Your task to perform on an android device: Open calendar and show me the third week of next month Image 0: 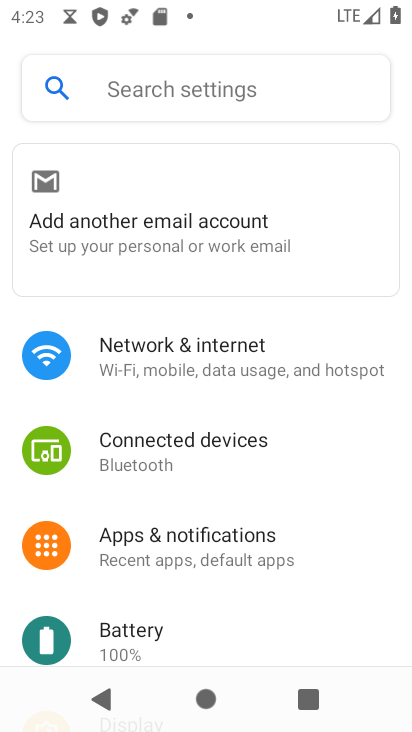
Step 0: press back button
Your task to perform on an android device: Open calendar and show me the third week of next month Image 1: 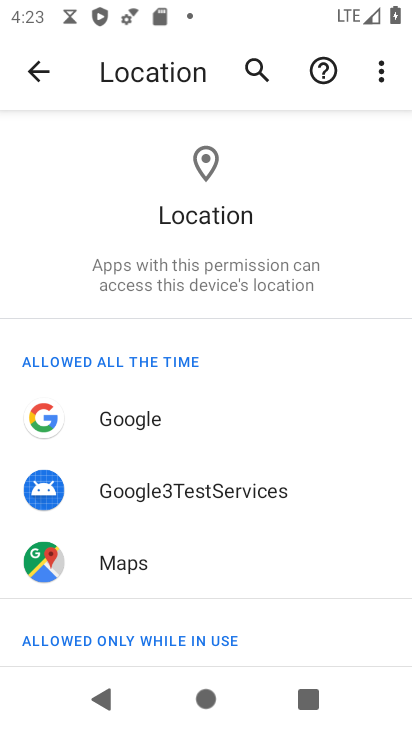
Step 1: press back button
Your task to perform on an android device: Open calendar and show me the third week of next month Image 2: 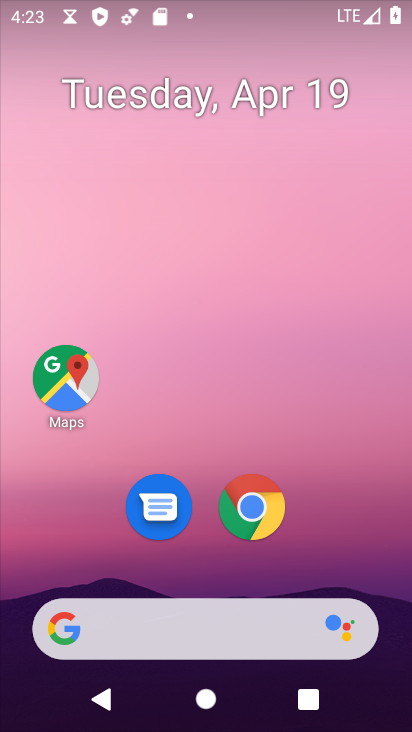
Step 2: drag from (341, 539) to (352, 91)
Your task to perform on an android device: Open calendar and show me the third week of next month Image 3: 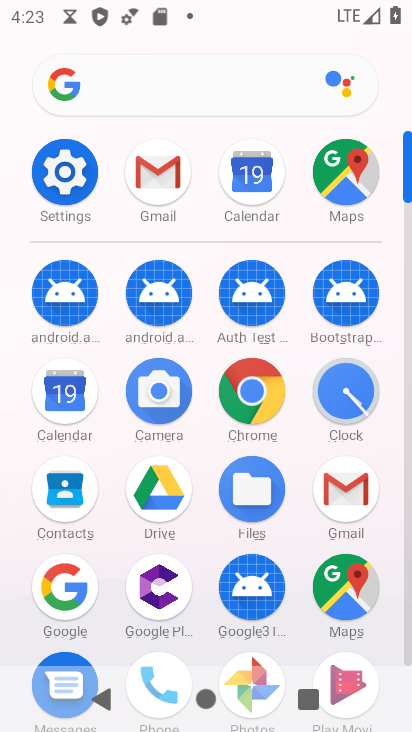
Step 3: click (45, 381)
Your task to perform on an android device: Open calendar and show me the third week of next month Image 4: 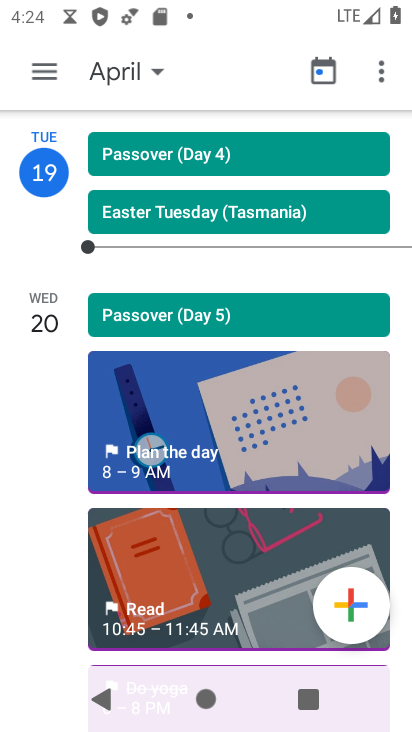
Step 4: click (124, 78)
Your task to perform on an android device: Open calendar and show me the third week of next month Image 5: 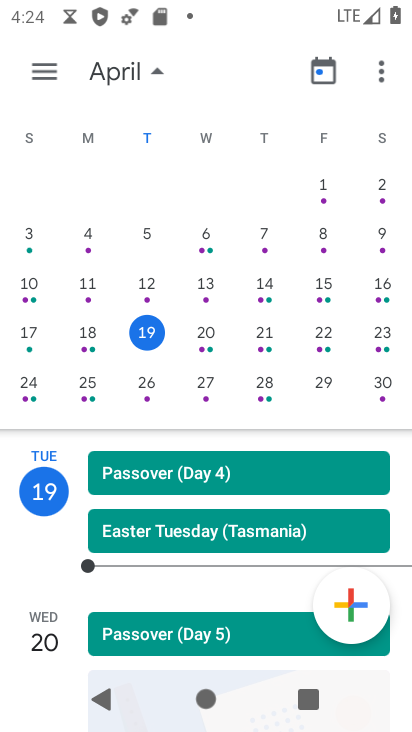
Step 5: drag from (378, 308) to (26, 251)
Your task to perform on an android device: Open calendar and show me the third week of next month Image 6: 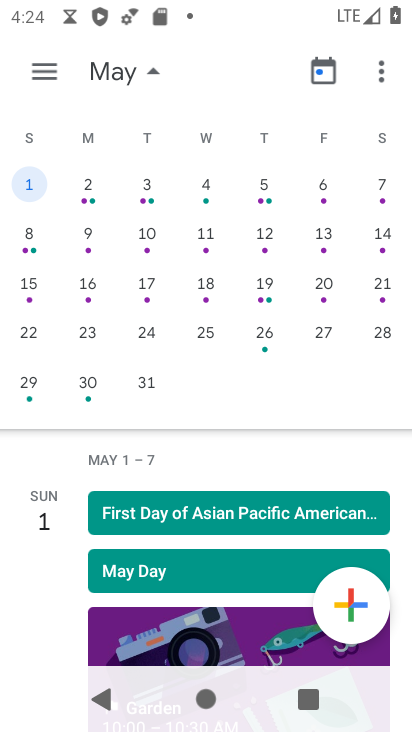
Step 6: click (37, 303)
Your task to perform on an android device: Open calendar and show me the third week of next month Image 7: 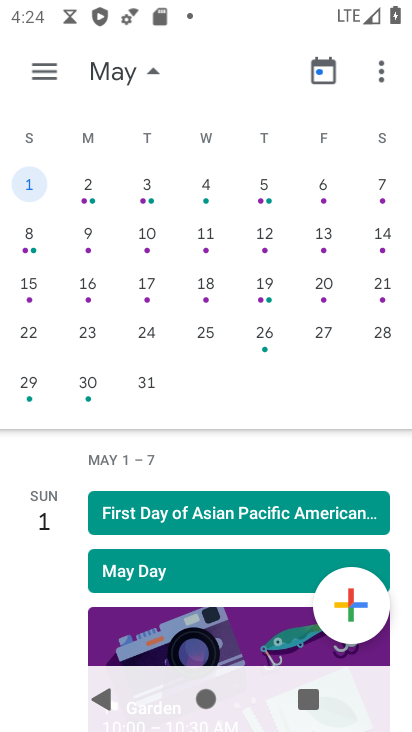
Step 7: click (37, 296)
Your task to perform on an android device: Open calendar and show me the third week of next month Image 8: 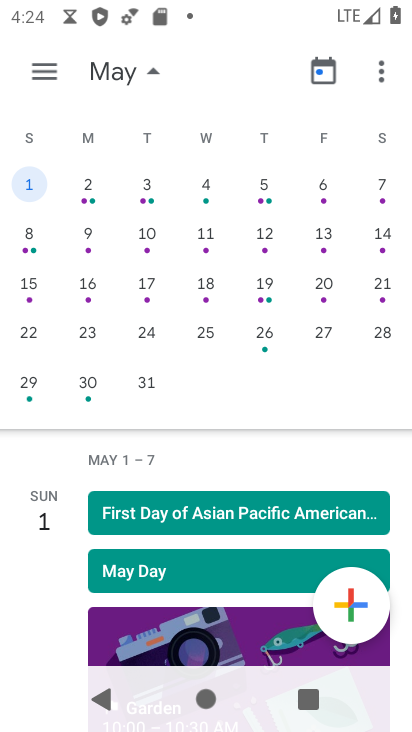
Step 8: click (44, 289)
Your task to perform on an android device: Open calendar and show me the third week of next month Image 9: 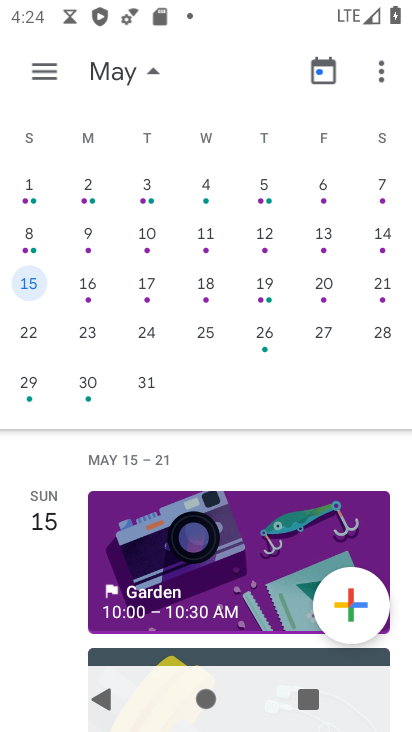
Step 9: task complete